Your task to perform on an android device: turn on sleep mode Image 0: 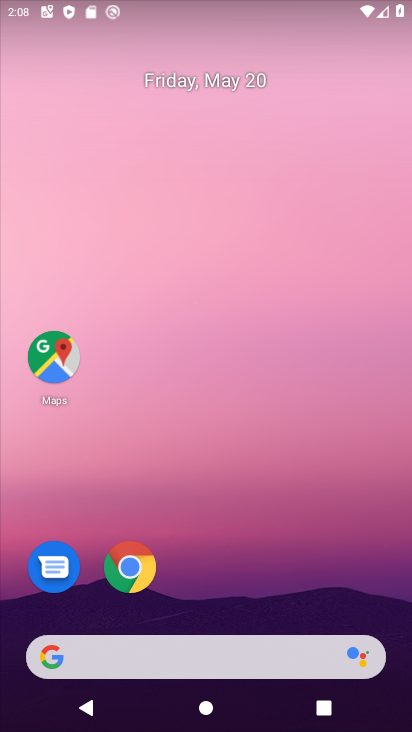
Step 0: drag from (253, 557) to (214, 50)
Your task to perform on an android device: turn on sleep mode Image 1: 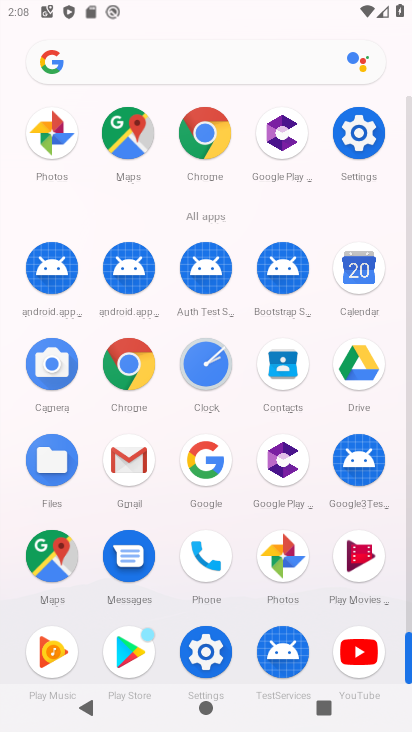
Step 1: click (206, 650)
Your task to perform on an android device: turn on sleep mode Image 2: 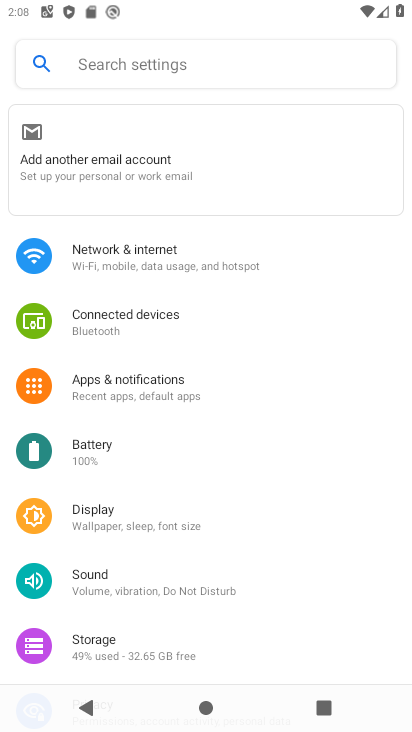
Step 2: drag from (256, 521) to (270, 266)
Your task to perform on an android device: turn on sleep mode Image 3: 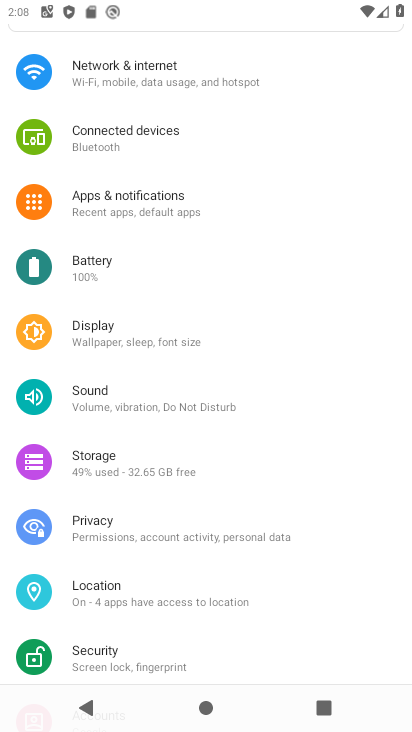
Step 3: click (186, 69)
Your task to perform on an android device: turn on sleep mode Image 4: 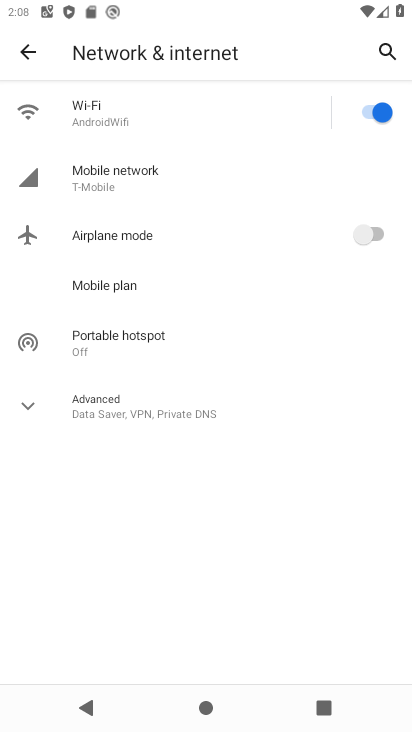
Step 4: click (31, 406)
Your task to perform on an android device: turn on sleep mode Image 5: 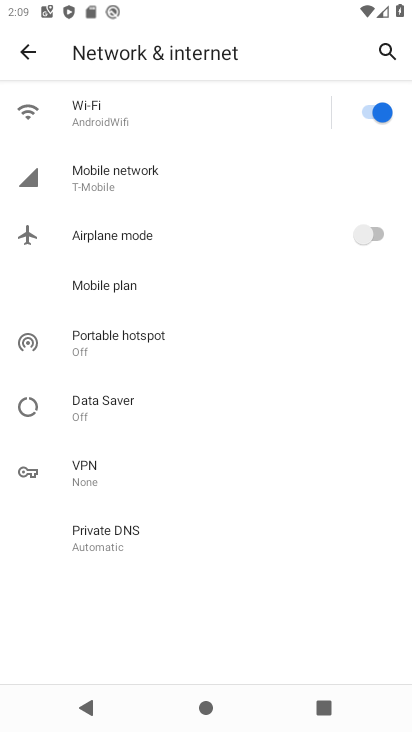
Step 5: click (26, 55)
Your task to perform on an android device: turn on sleep mode Image 6: 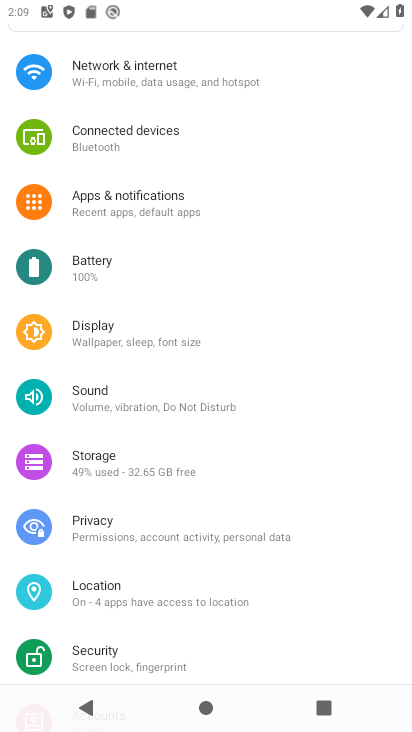
Step 6: click (145, 336)
Your task to perform on an android device: turn on sleep mode Image 7: 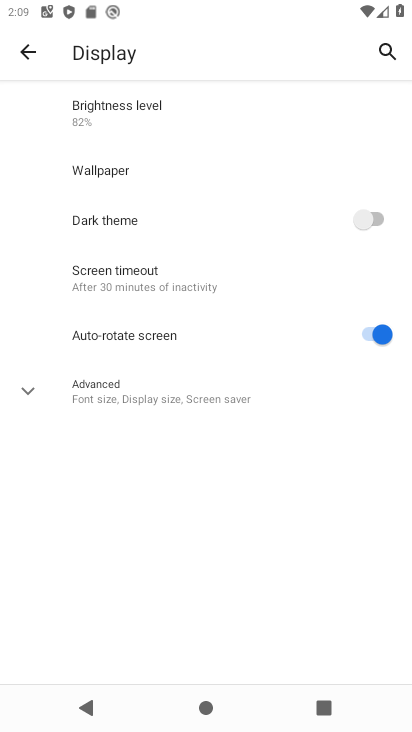
Step 7: click (20, 395)
Your task to perform on an android device: turn on sleep mode Image 8: 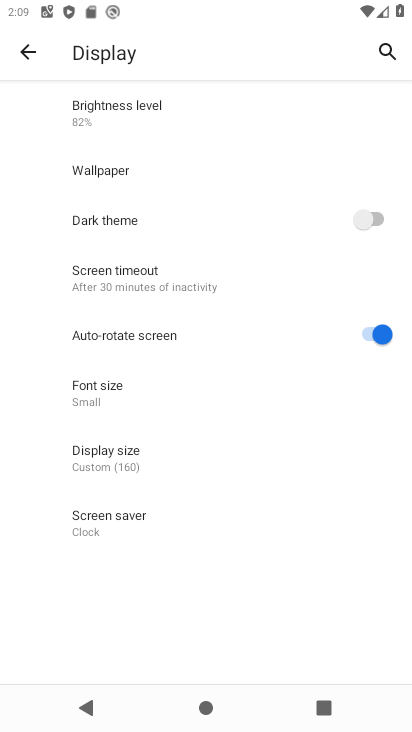
Step 8: task complete